Your task to perform on an android device: see tabs open on other devices in the chrome app Image 0: 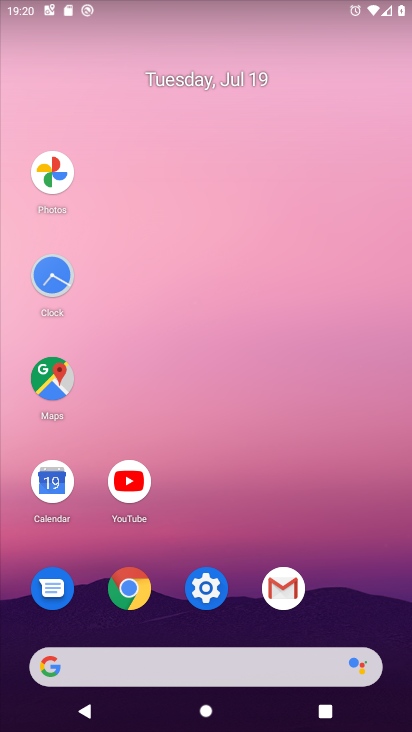
Step 0: click (133, 587)
Your task to perform on an android device: see tabs open on other devices in the chrome app Image 1: 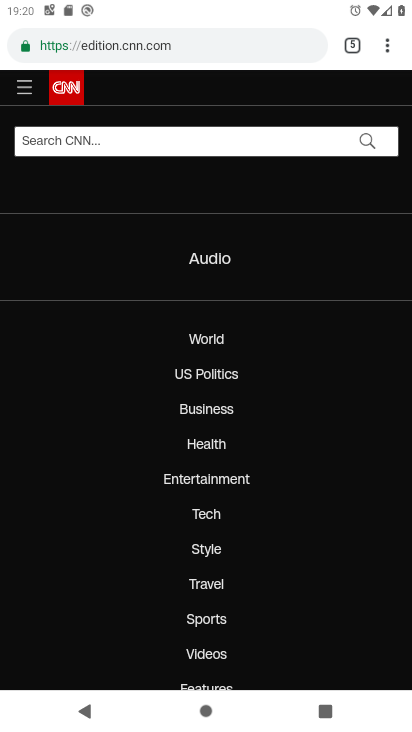
Step 1: click (387, 47)
Your task to perform on an android device: see tabs open on other devices in the chrome app Image 2: 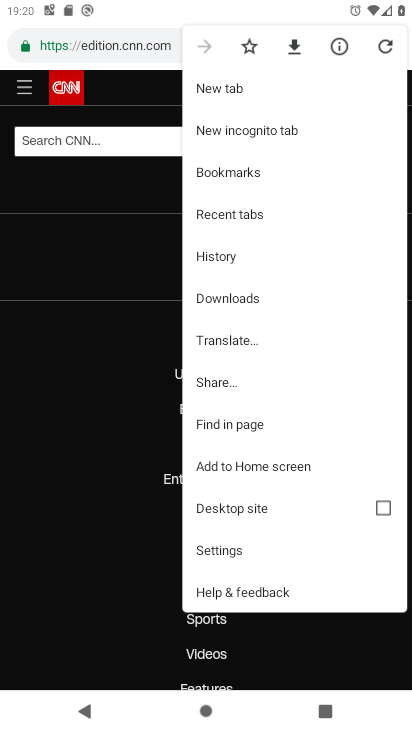
Step 2: click (221, 218)
Your task to perform on an android device: see tabs open on other devices in the chrome app Image 3: 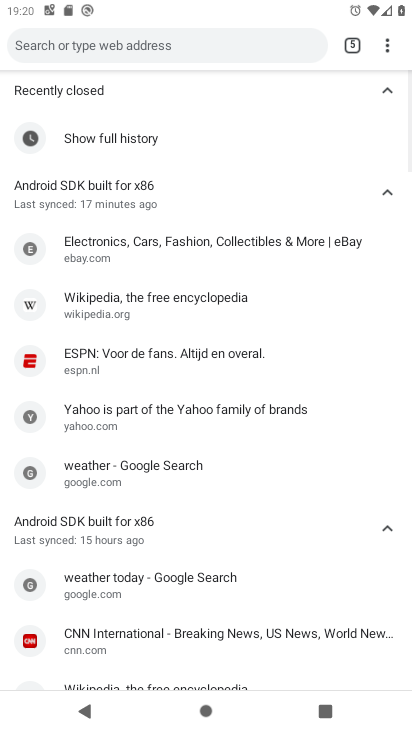
Step 3: task complete